Your task to perform on an android device: Open the Play Movies app and select the watchlist tab. Image 0: 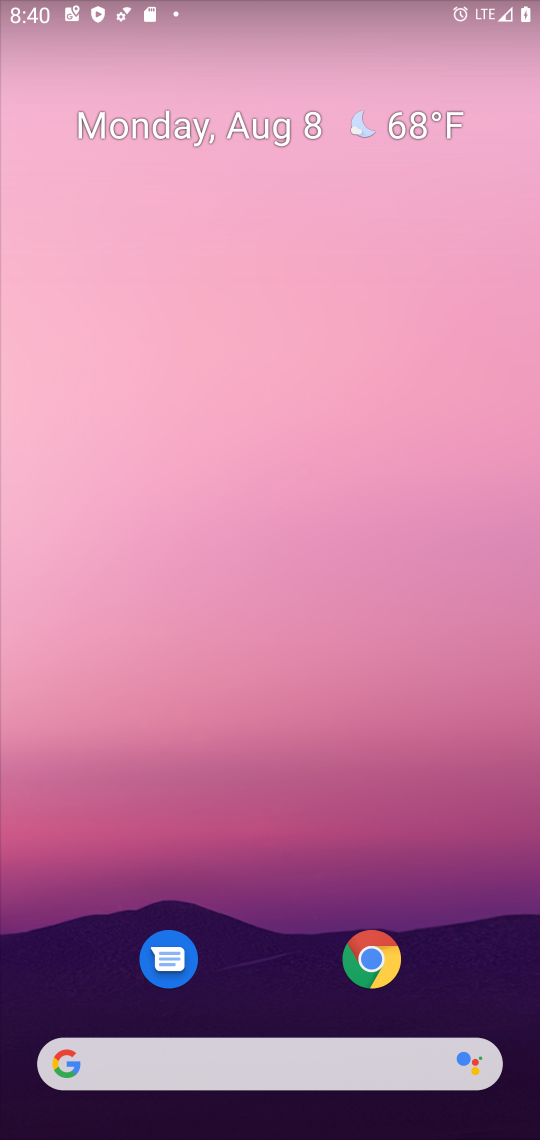
Step 0: drag from (477, 991) to (231, 49)
Your task to perform on an android device: Open the Play Movies app and select the watchlist tab. Image 1: 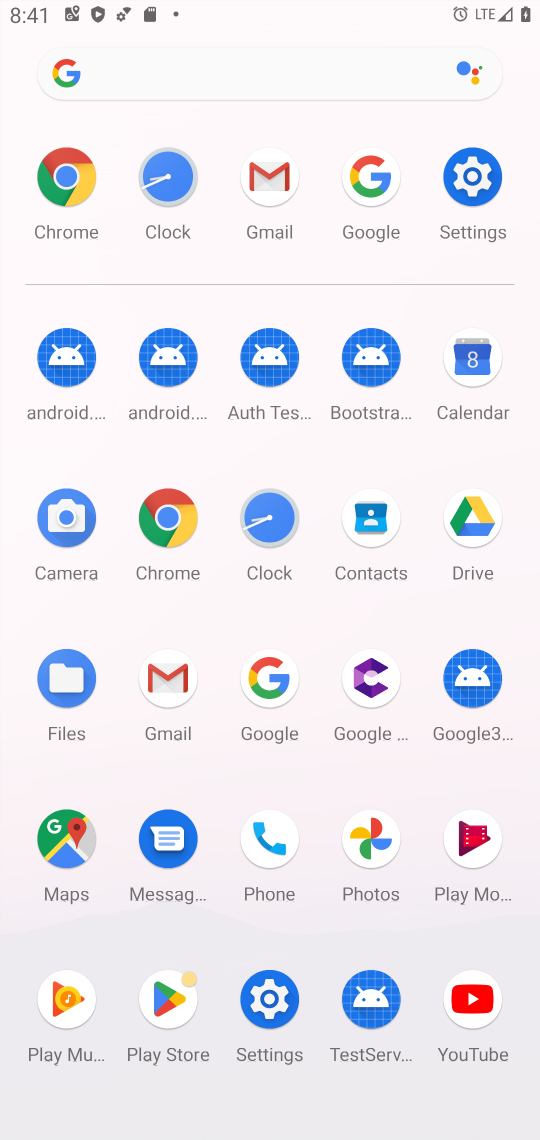
Step 1: click (470, 827)
Your task to perform on an android device: Open the Play Movies app and select the watchlist tab. Image 2: 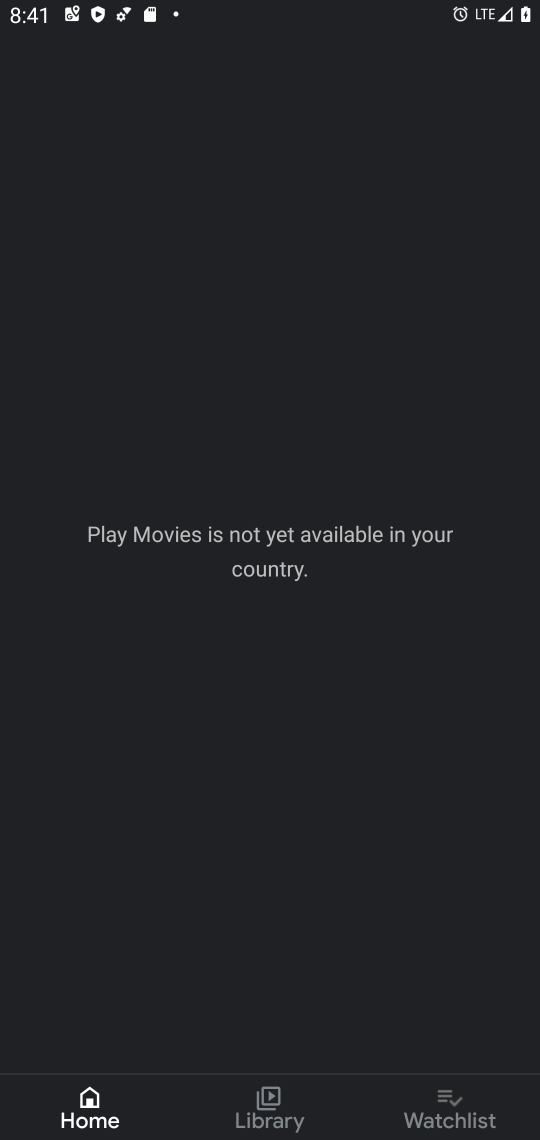
Step 2: click (477, 1118)
Your task to perform on an android device: Open the Play Movies app and select the watchlist tab. Image 3: 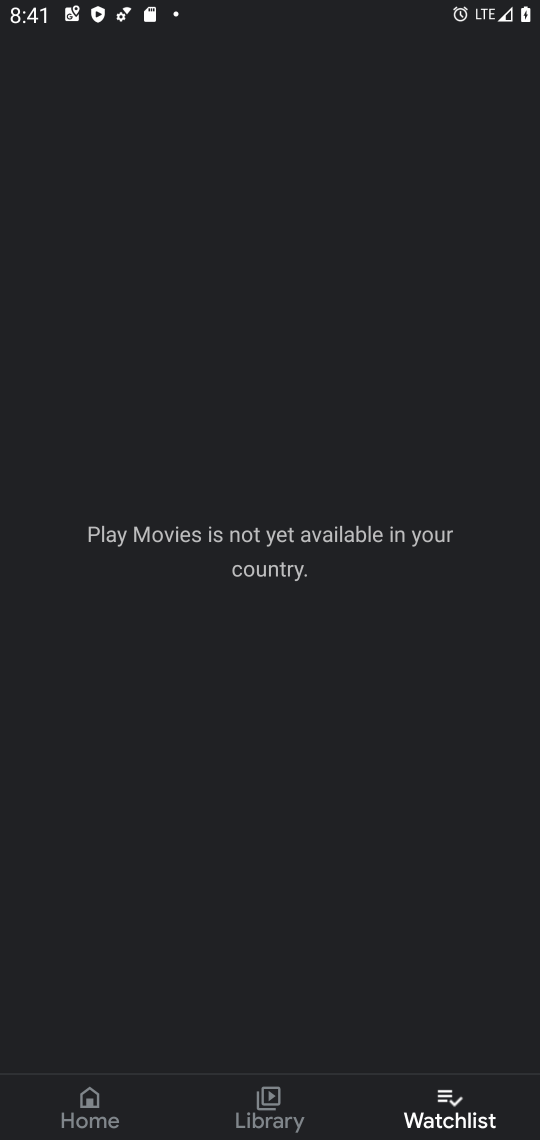
Step 3: task complete